Your task to perform on an android device: remove spam from my inbox in the gmail app Image 0: 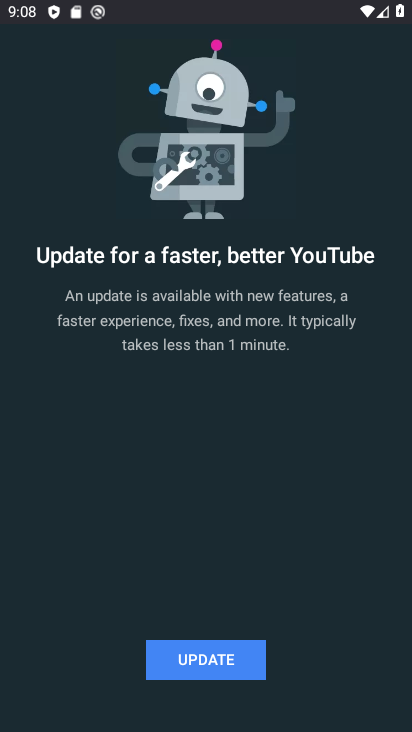
Step 0: press home button
Your task to perform on an android device: remove spam from my inbox in the gmail app Image 1: 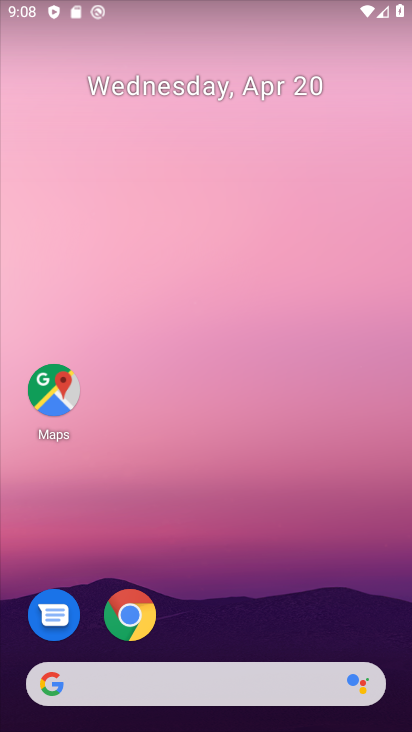
Step 1: drag from (221, 613) to (212, 153)
Your task to perform on an android device: remove spam from my inbox in the gmail app Image 2: 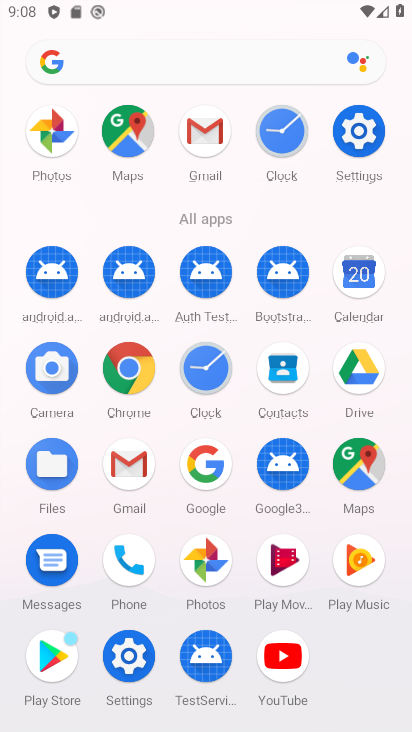
Step 2: click (202, 126)
Your task to perform on an android device: remove spam from my inbox in the gmail app Image 3: 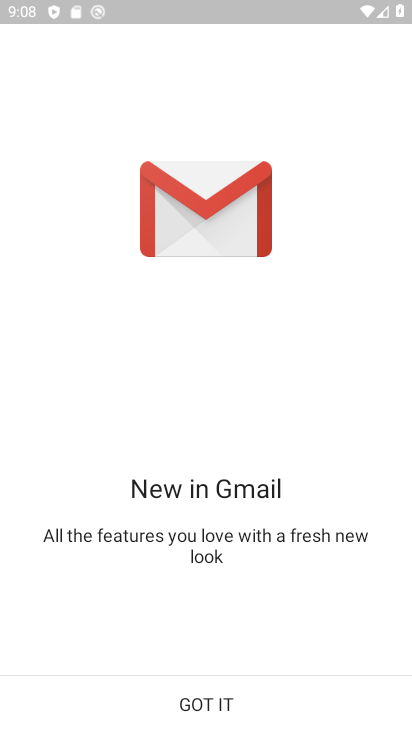
Step 3: click (225, 698)
Your task to perform on an android device: remove spam from my inbox in the gmail app Image 4: 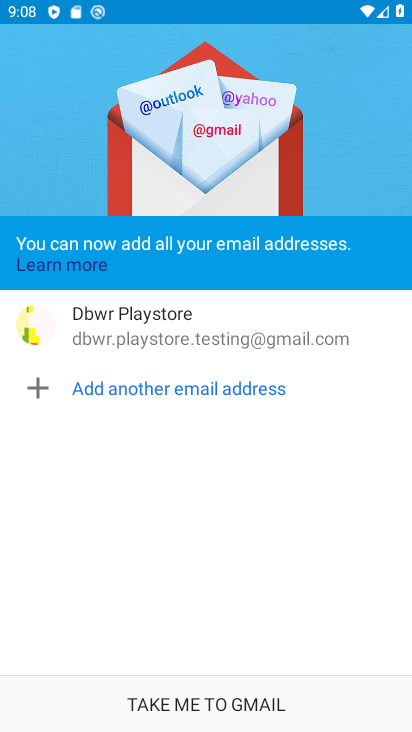
Step 4: click (225, 698)
Your task to perform on an android device: remove spam from my inbox in the gmail app Image 5: 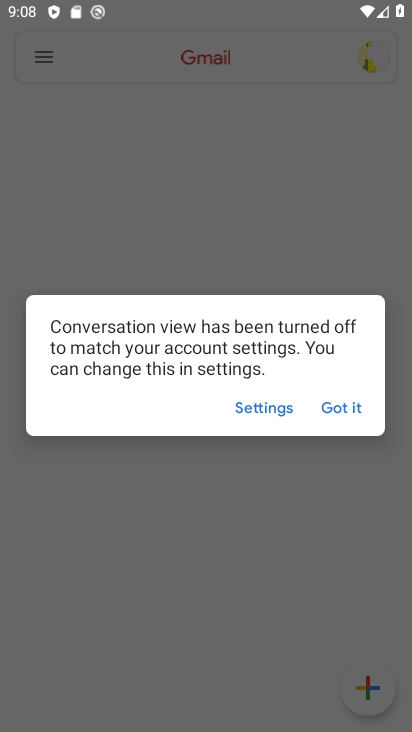
Step 5: click (331, 410)
Your task to perform on an android device: remove spam from my inbox in the gmail app Image 6: 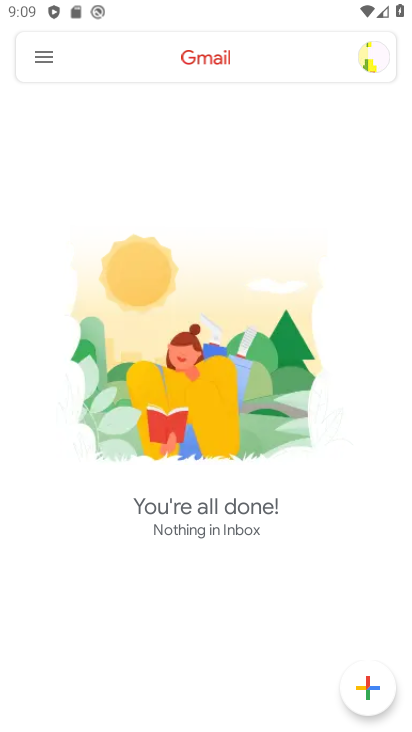
Step 6: click (39, 53)
Your task to perform on an android device: remove spam from my inbox in the gmail app Image 7: 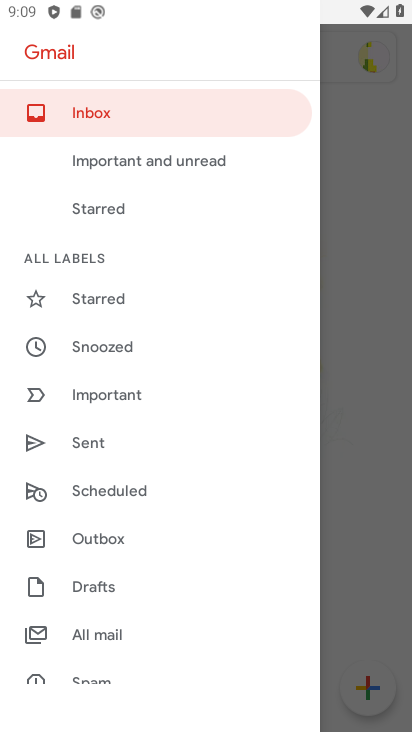
Step 7: drag from (169, 546) to (158, 285)
Your task to perform on an android device: remove spam from my inbox in the gmail app Image 8: 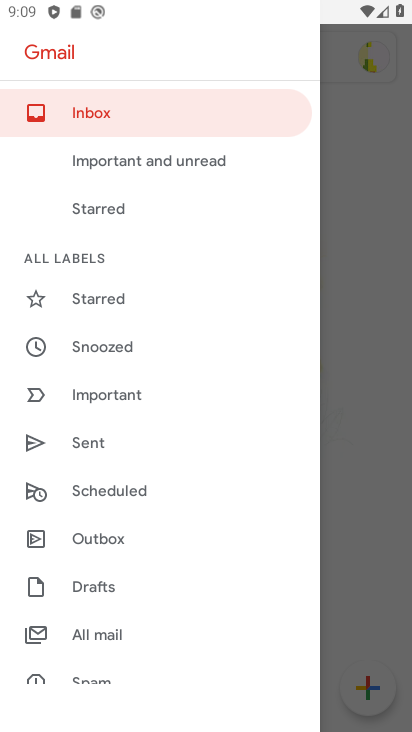
Step 8: drag from (143, 613) to (144, 302)
Your task to perform on an android device: remove spam from my inbox in the gmail app Image 9: 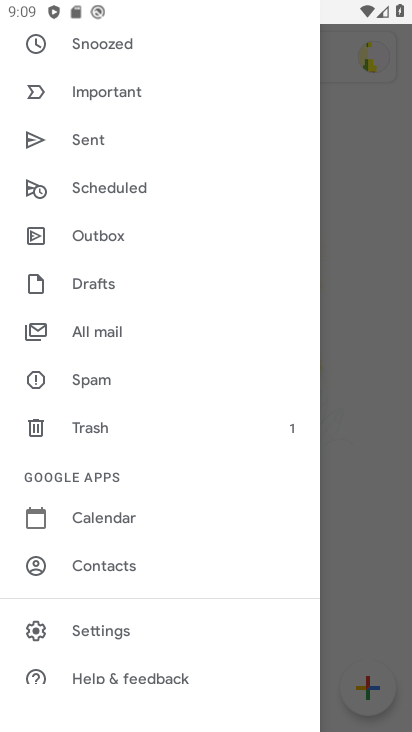
Step 9: click (84, 372)
Your task to perform on an android device: remove spam from my inbox in the gmail app Image 10: 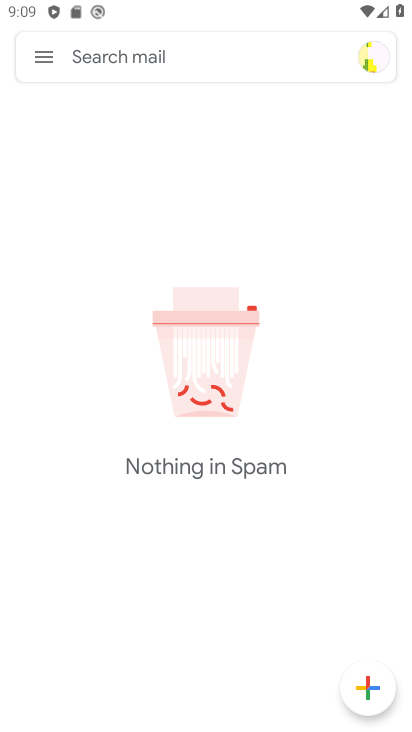
Step 10: task complete